Your task to perform on an android device: turn on priority inbox in the gmail app Image 0: 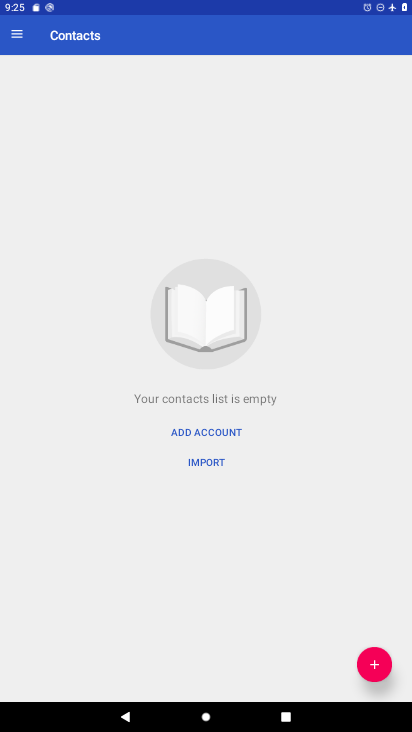
Step 0: press home button
Your task to perform on an android device: turn on priority inbox in the gmail app Image 1: 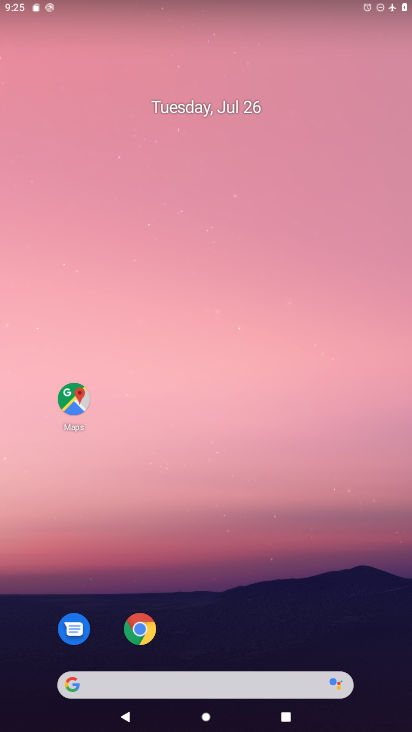
Step 1: drag from (198, 650) to (124, 75)
Your task to perform on an android device: turn on priority inbox in the gmail app Image 2: 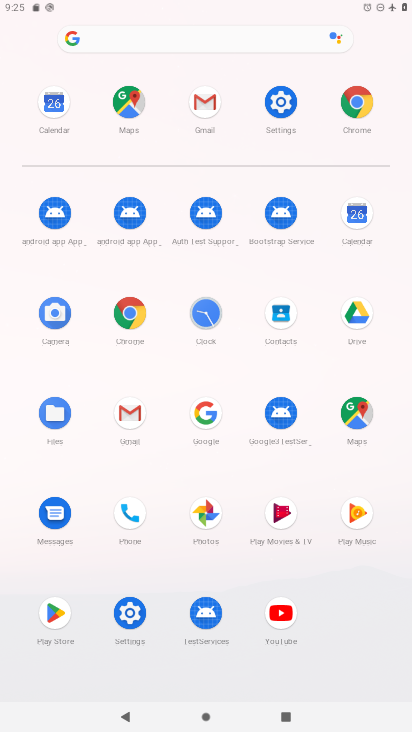
Step 2: click (127, 421)
Your task to perform on an android device: turn on priority inbox in the gmail app Image 3: 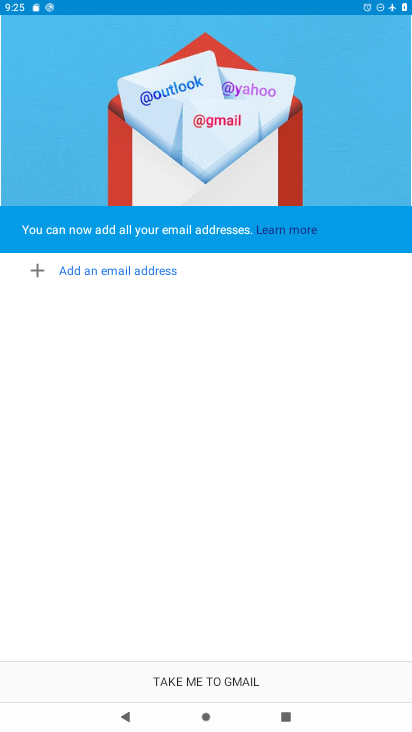
Step 3: task complete